Your task to perform on an android device: Open the Play Movies app and select the watchlist tab. Image 0: 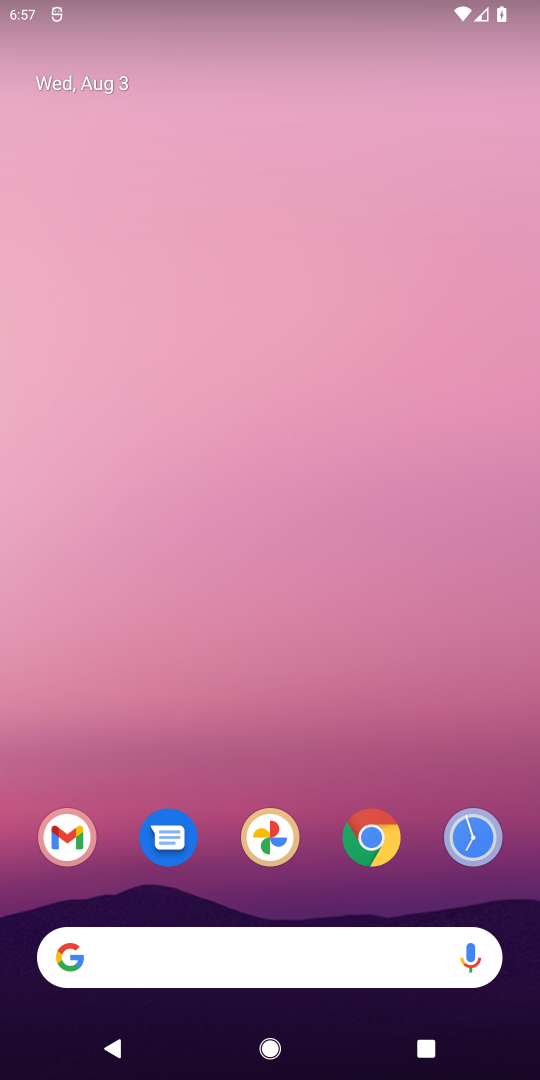
Step 0: press home button
Your task to perform on an android device: Open the Play Movies app and select the watchlist tab. Image 1: 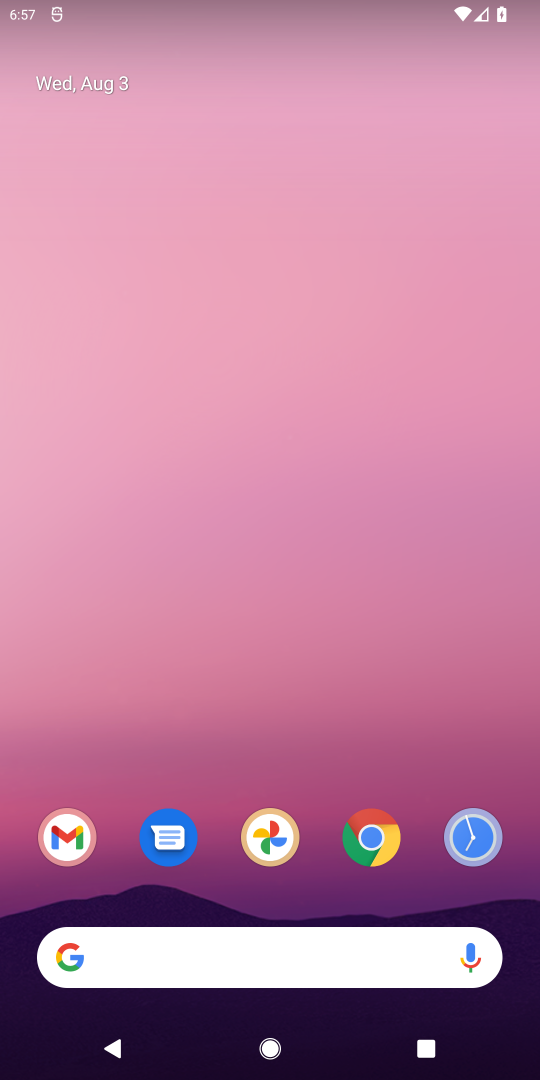
Step 1: drag from (328, 740) to (350, 80)
Your task to perform on an android device: Open the Play Movies app and select the watchlist tab. Image 2: 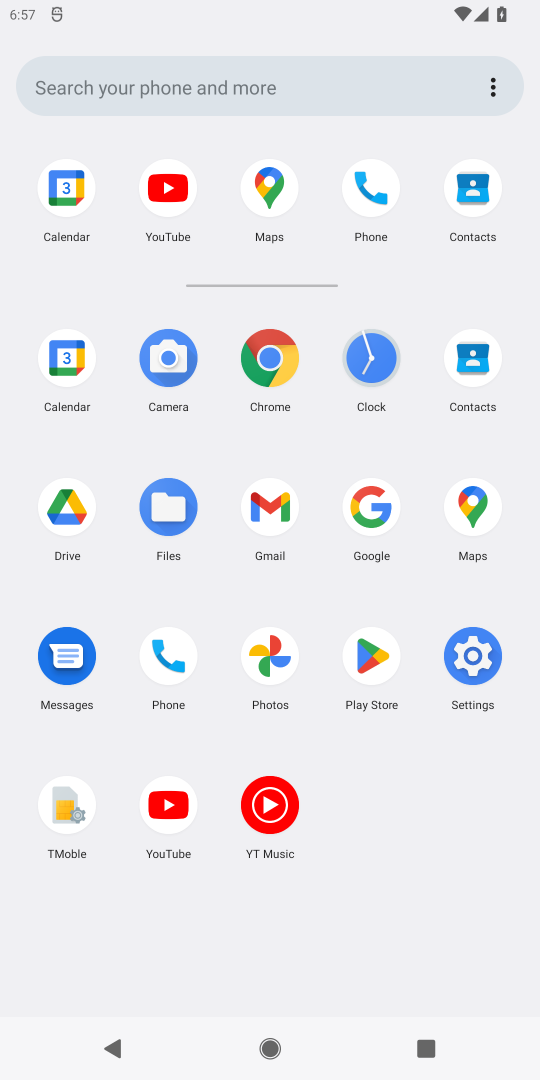
Step 2: click (355, 775)
Your task to perform on an android device: Open the Play Movies app and select the watchlist tab. Image 3: 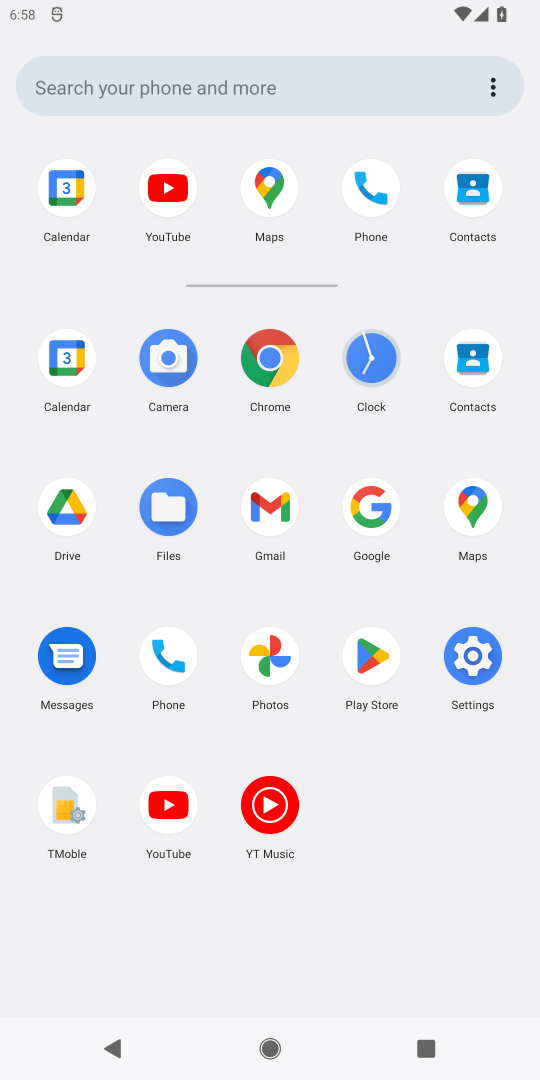
Step 3: task complete